Your task to perform on an android device: Open Chrome and go to the settings page Image 0: 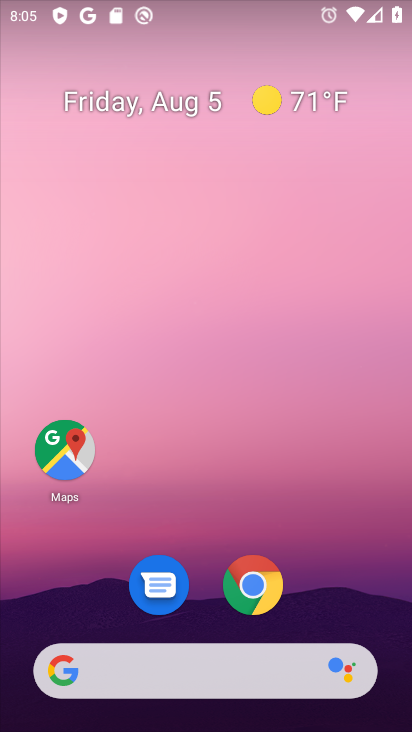
Step 0: click (248, 573)
Your task to perform on an android device: Open Chrome and go to the settings page Image 1: 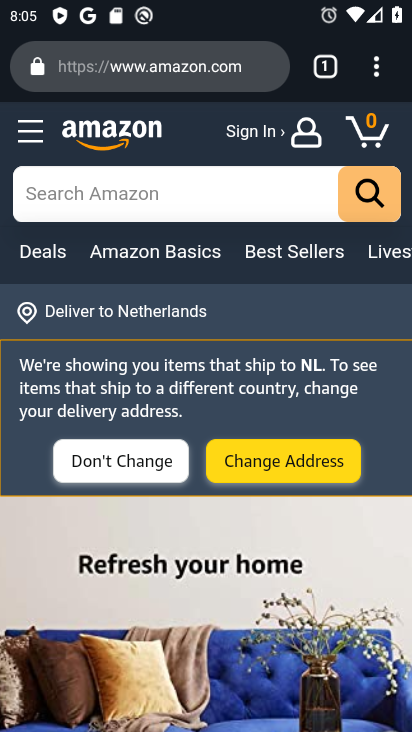
Step 1: click (372, 67)
Your task to perform on an android device: Open Chrome and go to the settings page Image 2: 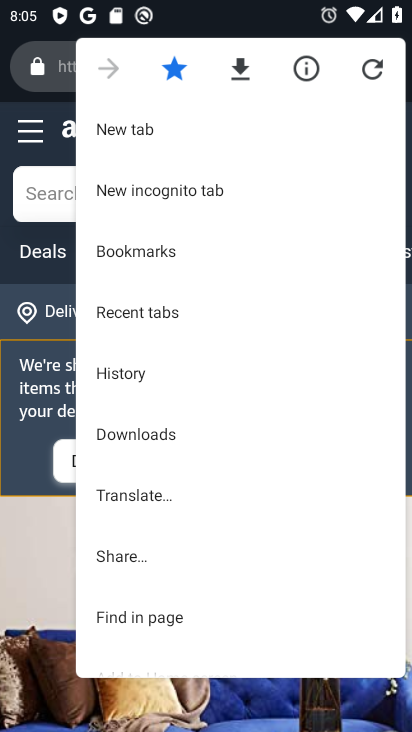
Step 2: drag from (221, 520) to (245, 104)
Your task to perform on an android device: Open Chrome and go to the settings page Image 3: 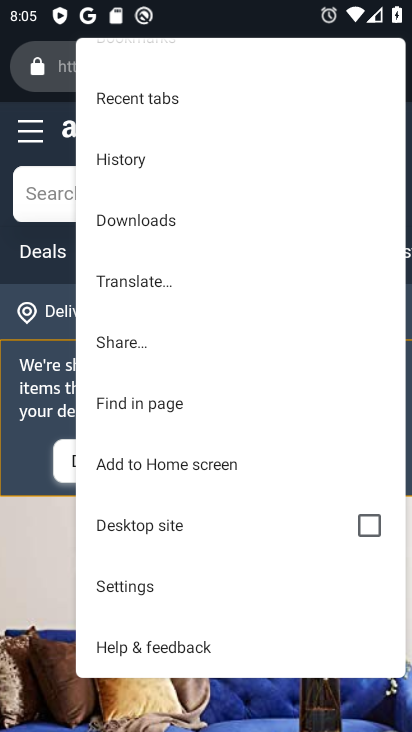
Step 3: click (151, 586)
Your task to perform on an android device: Open Chrome and go to the settings page Image 4: 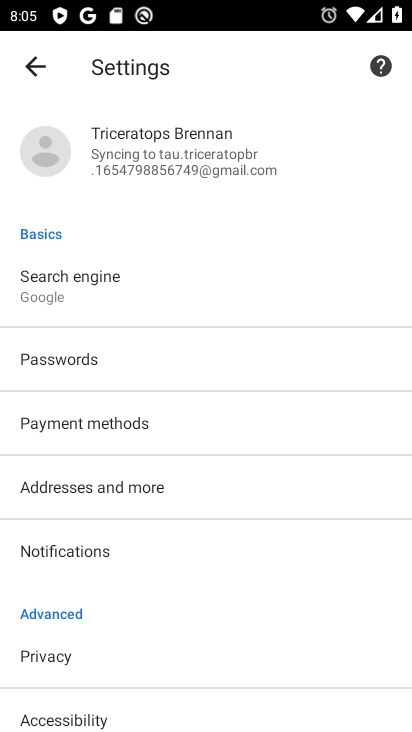
Step 4: task complete